Your task to perform on an android device: move an email to a new category in the gmail app Image 0: 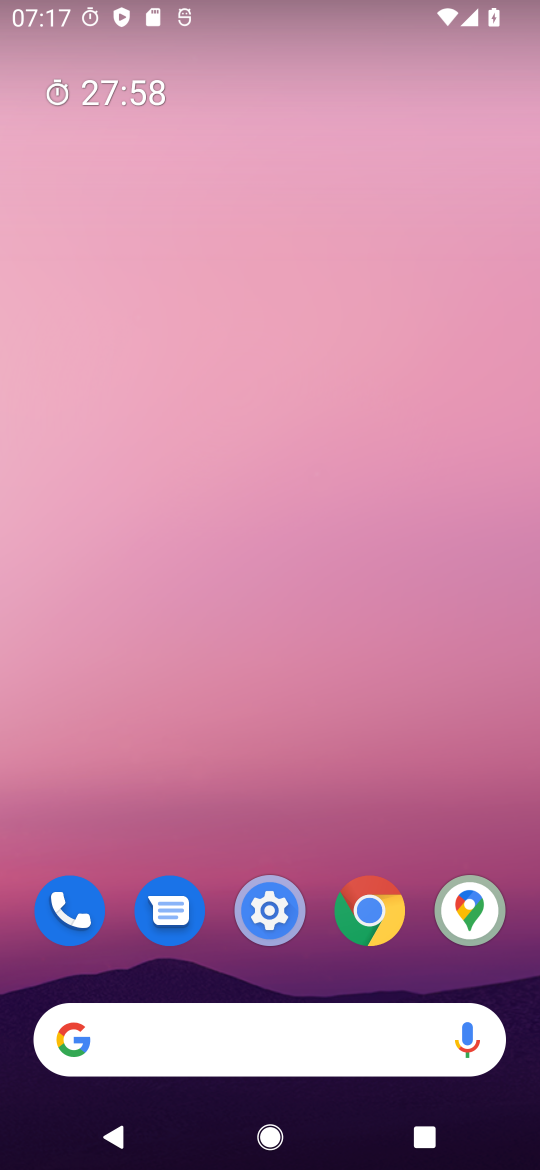
Step 0: drag from (409, 1028) to (392, 224)
Your task to perform on an android device: move an email to a new category in the gmail app Image 1: 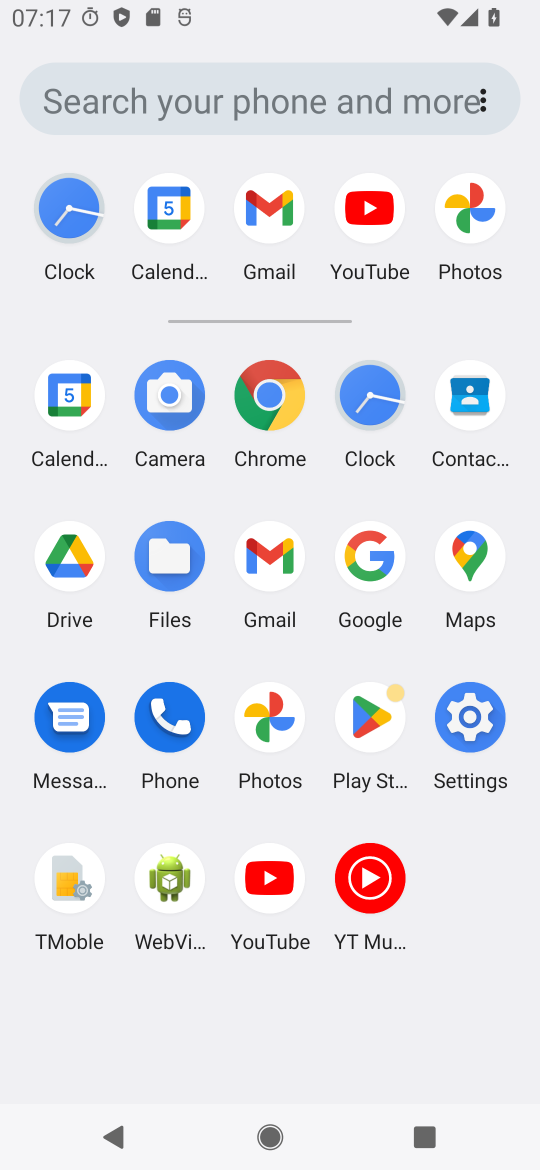
Step 1: click (277, 550)
Your task to perform on an android device: move an email to a new category in the gmail app Image 2: 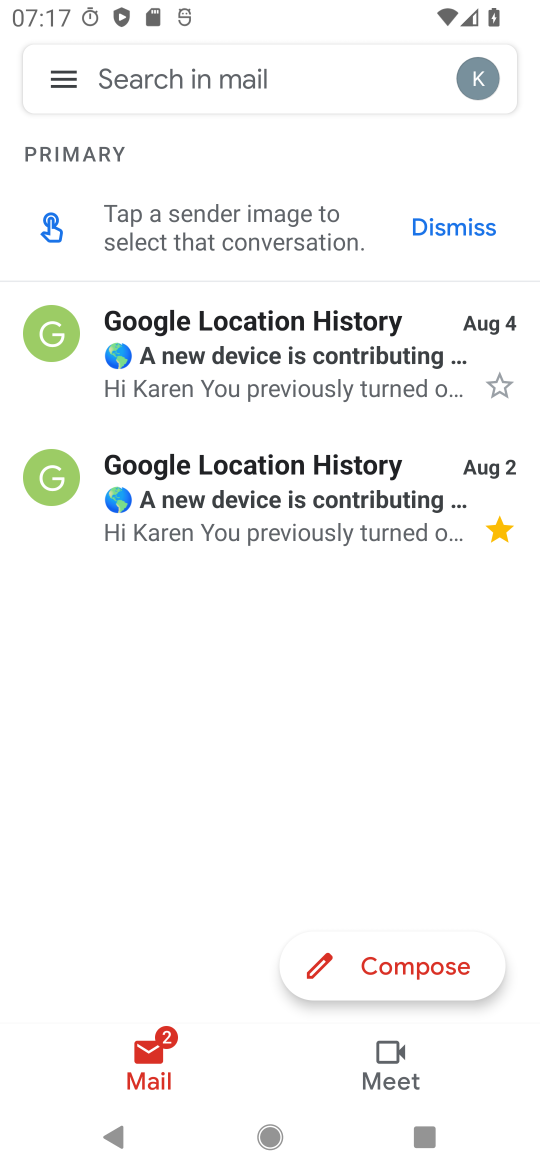
Step 2: click (51, 79)
Your task to perform on an android device: move an email to a new category in the gmail app Image 3: 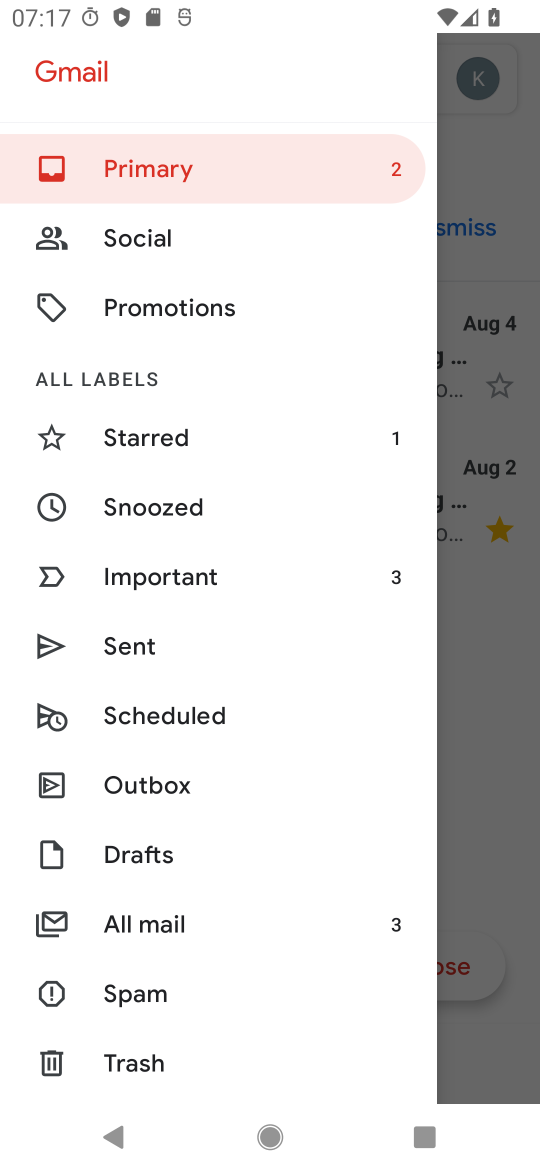
Step 3: click (481, 153)
Your task to perform on an android device: move an email to a new category in the gmail app Image 4: 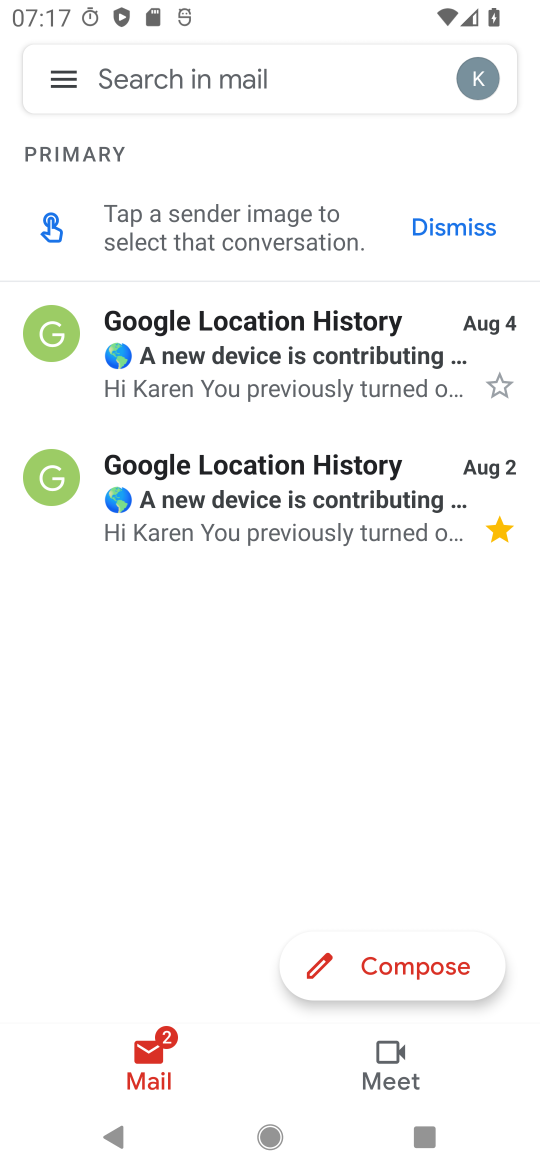
Step 4: click (390, 345)
Your task to perform on an android device: move an email to a new category in the gmail app Image 5: 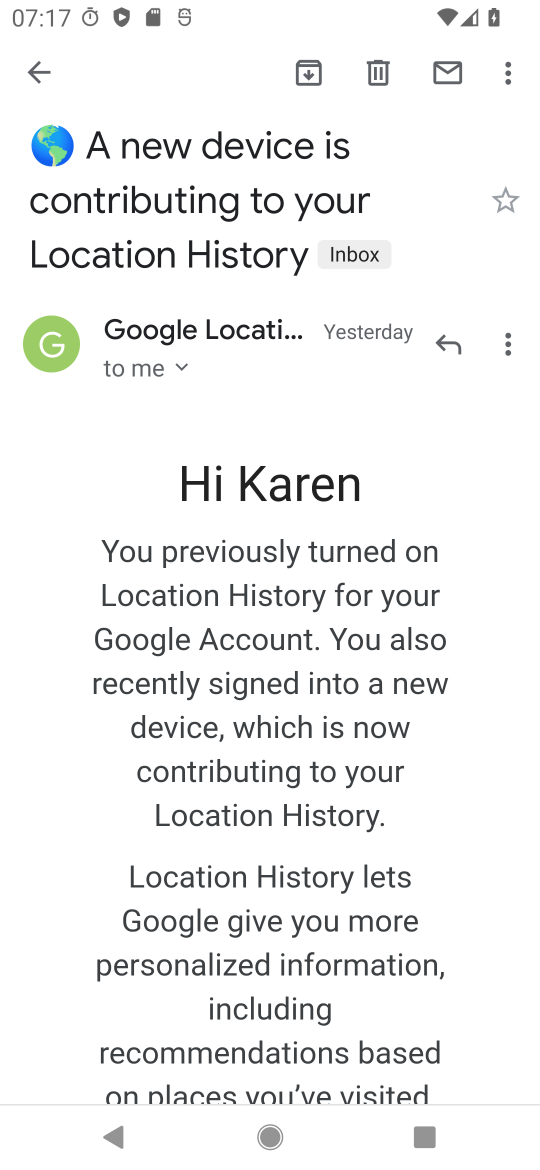
Step 5: click (515, 57)
Your task to perform on an android device: move an email to a new category in the gmail app Image 6: 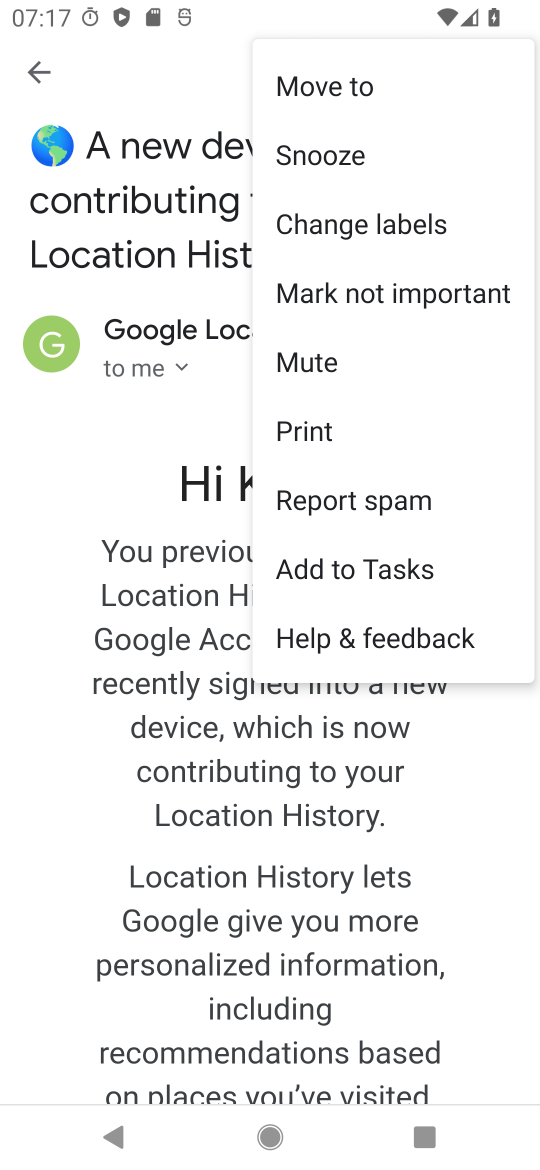
Step 6: click (374, 200)
Your task to perform on an android device: move an email to a new category in the gmail app Image 7: 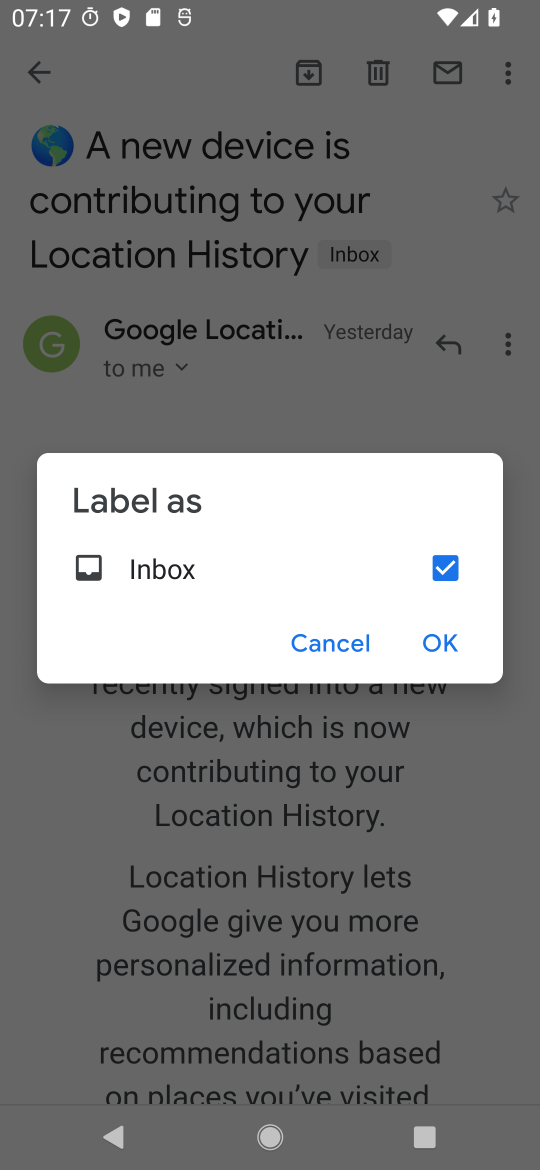
Step 7: click (442, 642)
Your task to perform on an android device: move an email to a new category in the gmail app Image 8: 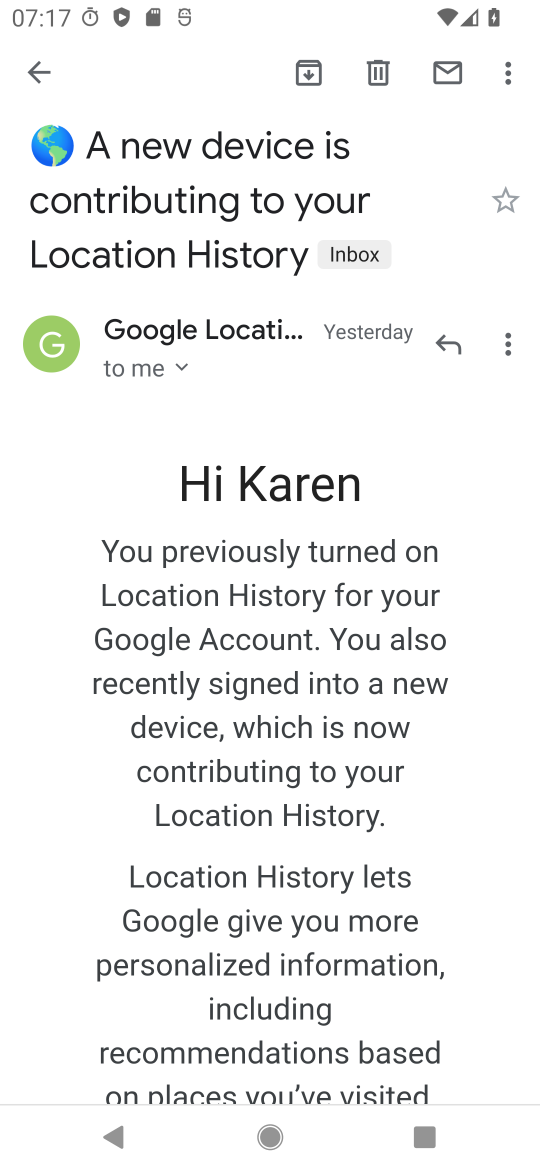
Step 8: task complete